Your task to perform on an android device: Go to Wikipedia Image 0: 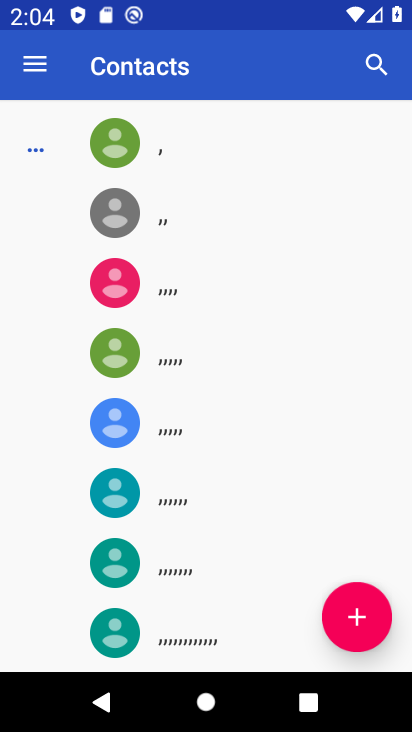
Step 0: drag from (252, 9) to (232, 692)
Your task to perform on an android device: Go to Wikipedia Image 1: 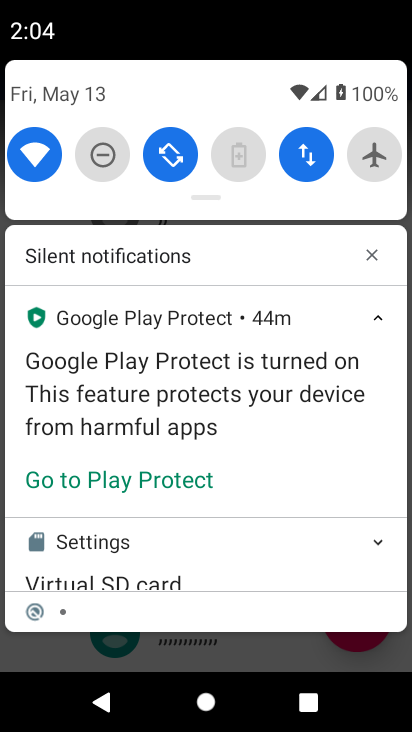
Step 1: press home button
Your task to perform on an android device: Go to Wikipedia Image 2: 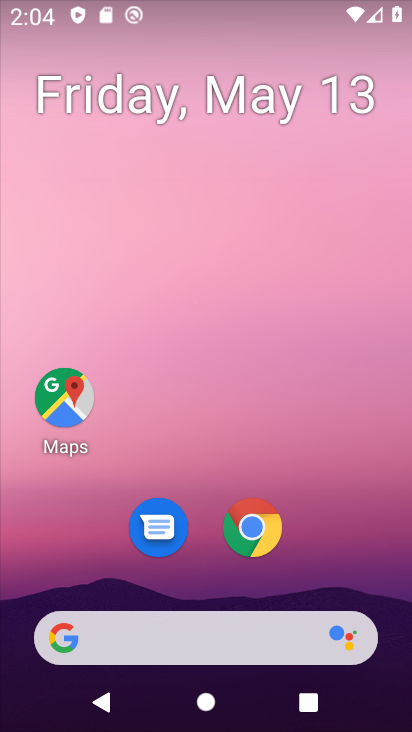
Step 2: click (260, 534)
Your task to perform on an android device: Go to Wikipedia Image 3: 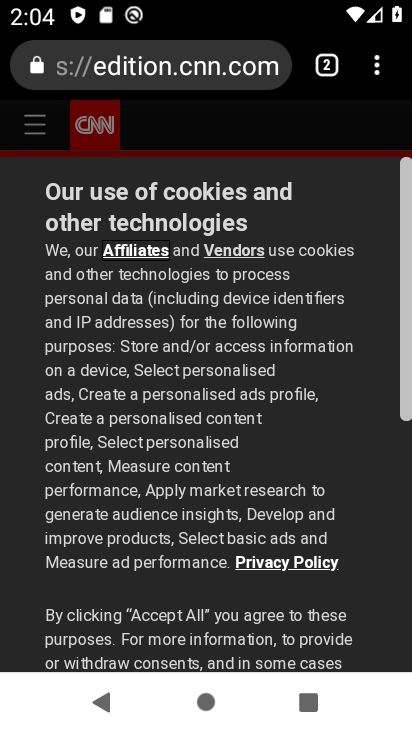
Step 3: click (325, 62)
Your task to perform on an android device: Go to Wikipedia Image 4: 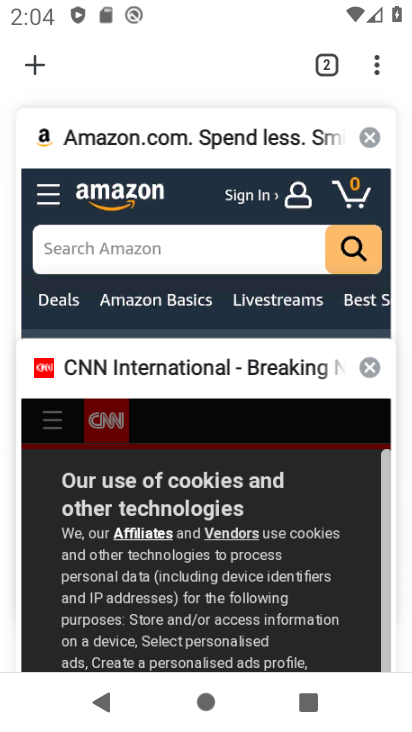
Step 4: click (53, 46)
Your task to perform on an android device: Go to Wikipedia Image 5: 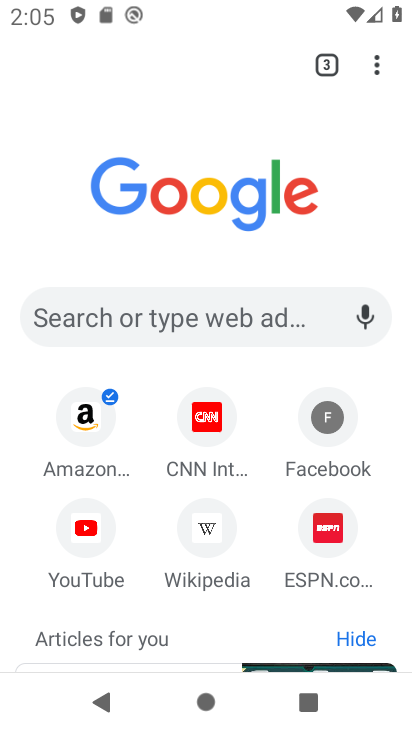
Step 5: click (215, 539)
Your task to perform on an android device: Go to Wikipedia Image 6: 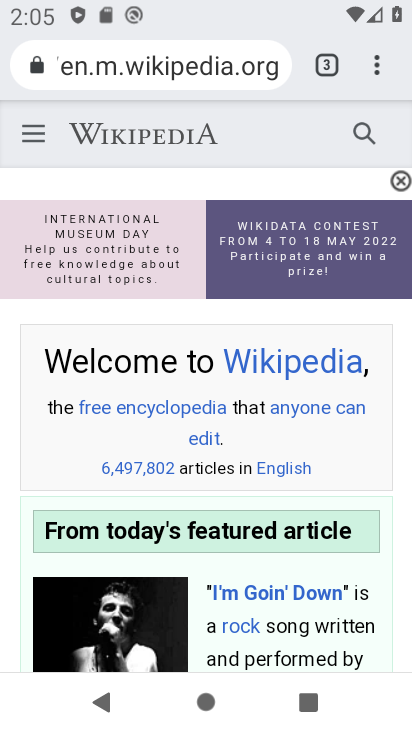
Step 6: task complete